Your task to perform on an android device: set the timer Image 0: 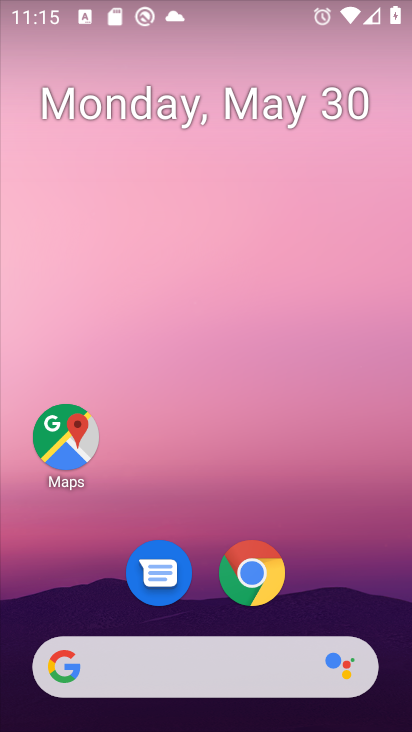
Step 0: drag from (180, 655) to (197, 122)
Your task to perform on an android device: set the timer Image 1: 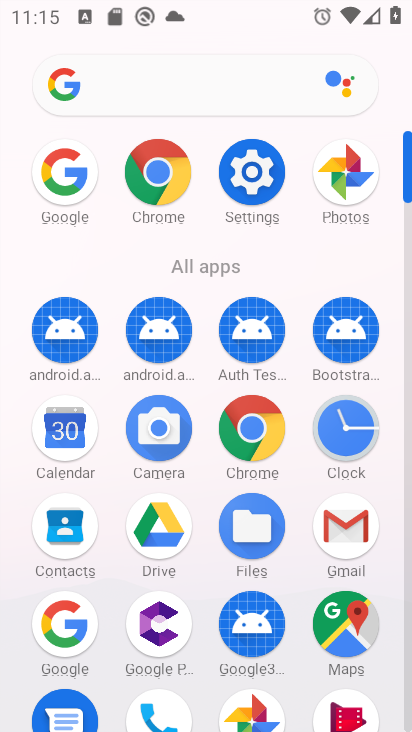
Step 1: click (355, 450)
Your task to perform on an android device: set the timer Image 2: 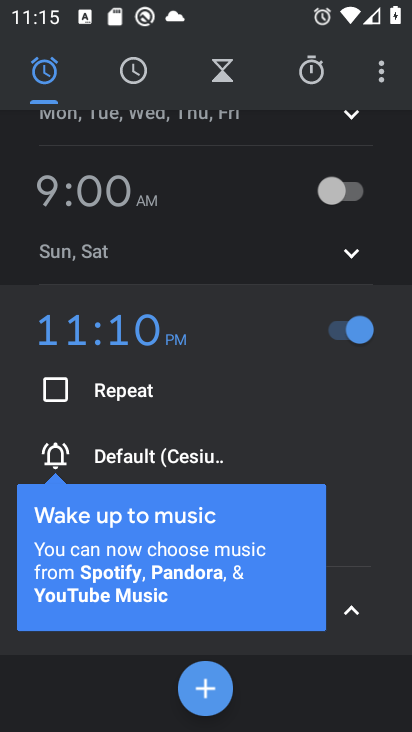
Step 2: click (390, 75)
Your task to perform on an android device: set the timer Image 3: 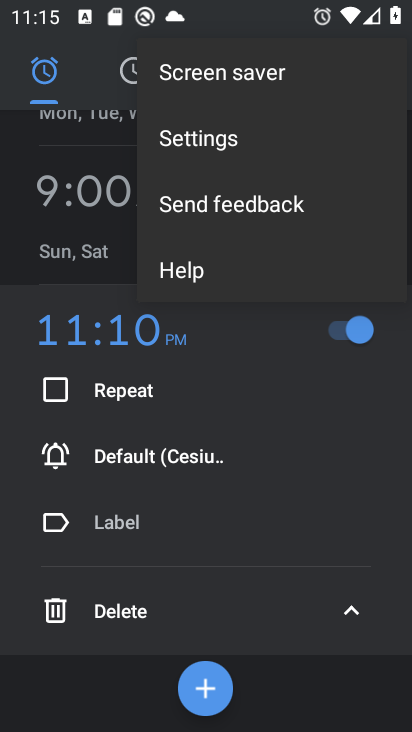
Step 3: click (119, 95)
Your task to perform on an android device: set the timer Image 4: 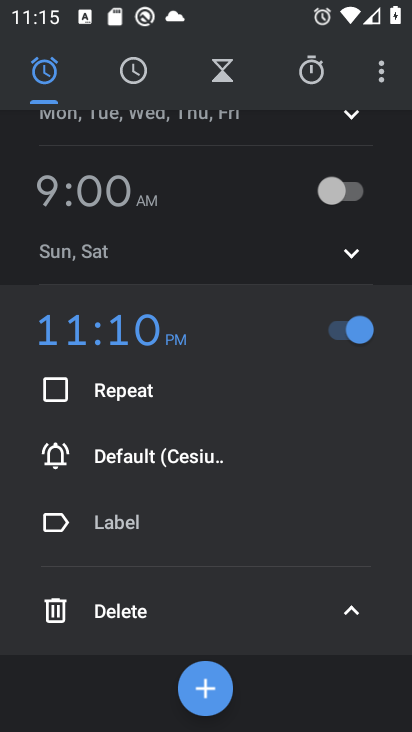
Step 4: click (222, 85)
Your task to perform on an android device: set the timer Image 5: 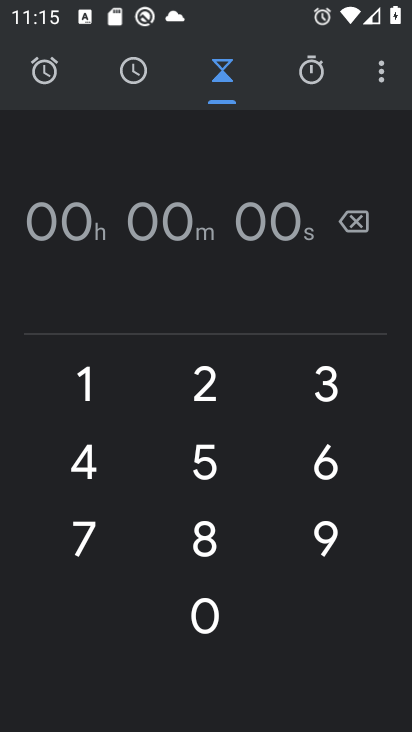
Step 5: click (195, 389)
Your task to perform on an android device: set the timer Image 6: 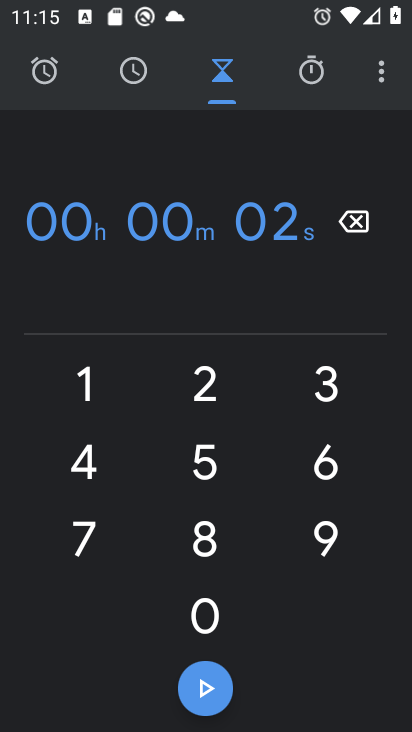
Step 6: click (205, 687)
Your task to perform on an android device: set the timer Image 7: 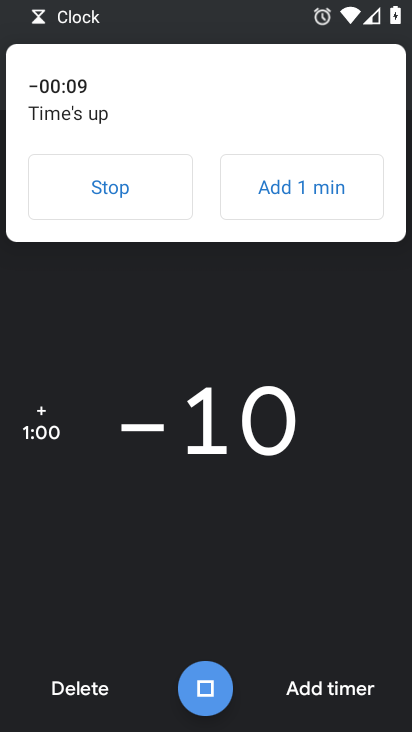
Step 7: task complete